Your task to perform on an android device: change the clock display to show seconds Image 0: 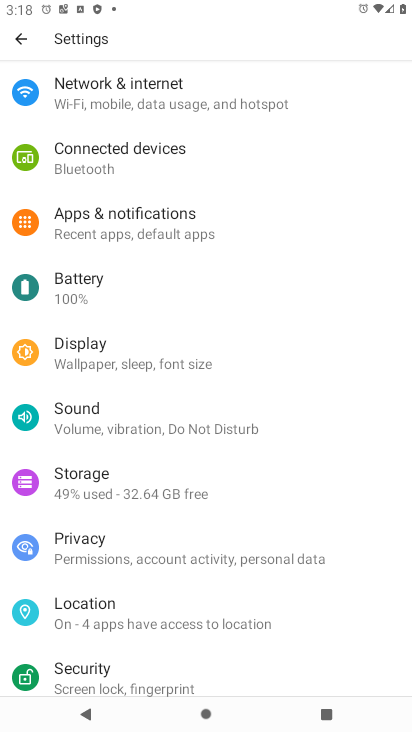
Step 0: press home button
Your task to perform on an android device: change the clock display to show seconds Image 1: 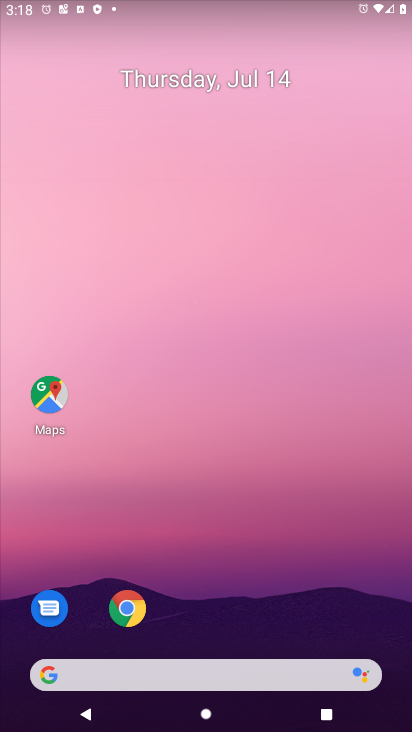
Step 1: drag from (389, 623) to (290, 70)
Your task to perform on an android device: change the clock display to show seconds Image 2: 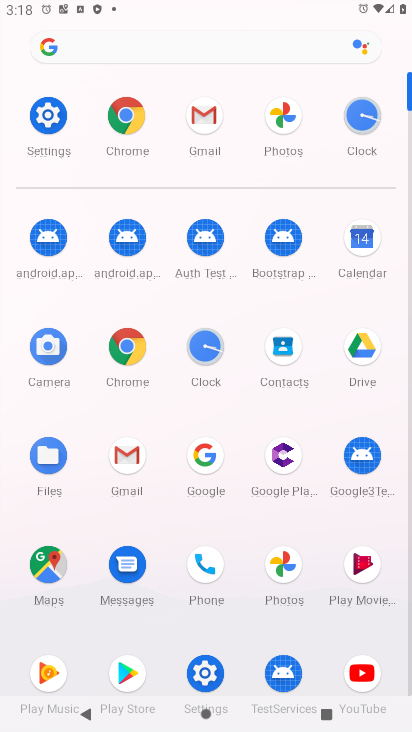
Step 2: click (201, 346)
Your task to perform on an android device: change the clock display to show seconds Image 3: 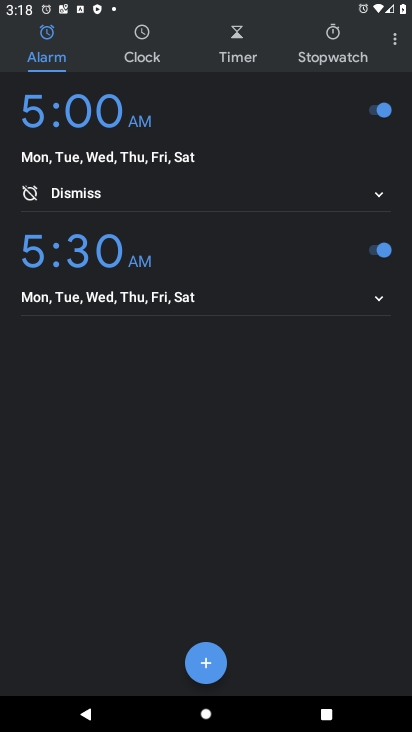
Step 3: click (396, 47)
Your task to perform on an android device: change the clock display to show seconds Image 4: 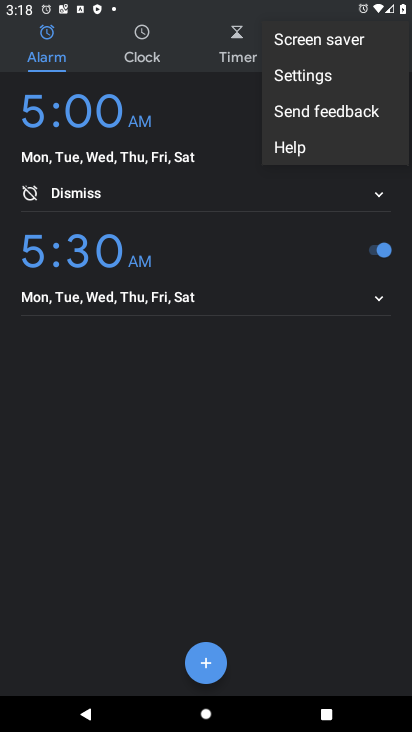
Step 4: click (304, 72)
Your task to perform on an android device: change the clock display to show seconds Image 5: 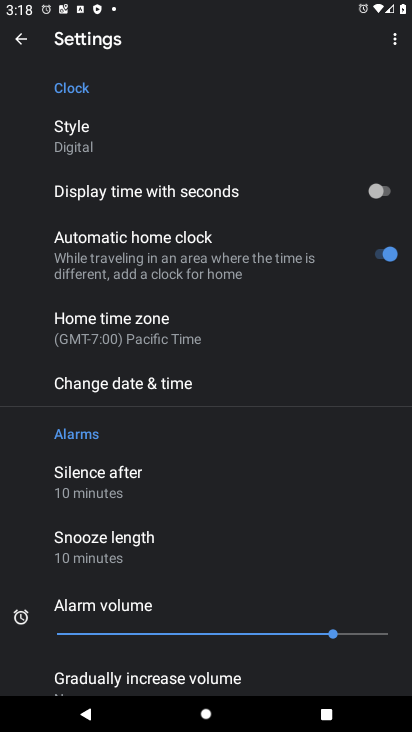
Step 5: click (387, 193)
Your task to perform on an android device: change the clock display to show seconds Image 6: 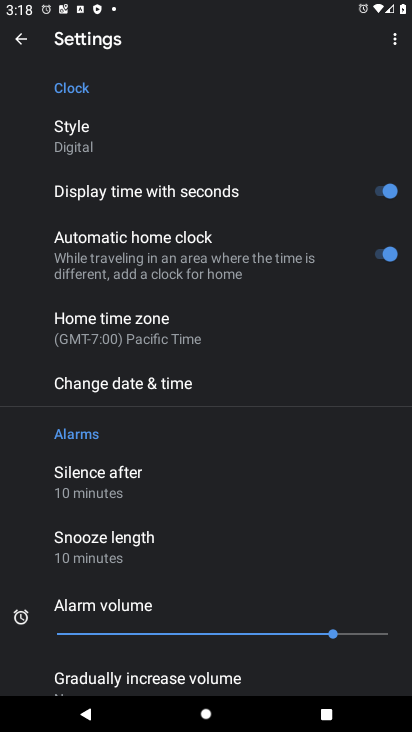
Step 6: task complete